Your task to perform on an android device: What is the news today? Image 0: 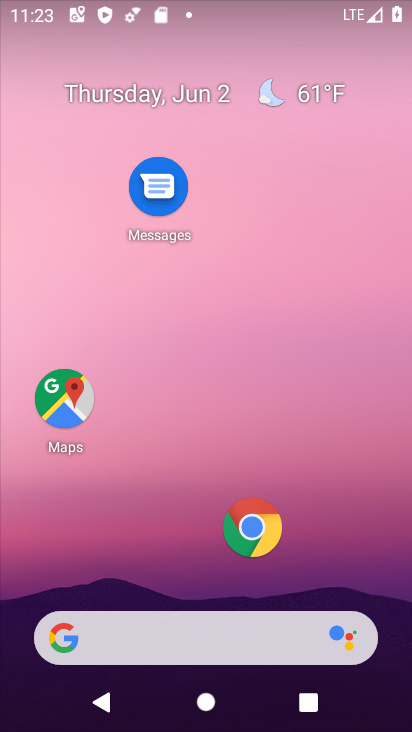
Step 0: press home button
Your task to perform on an android device: What is the news today? Image 1: 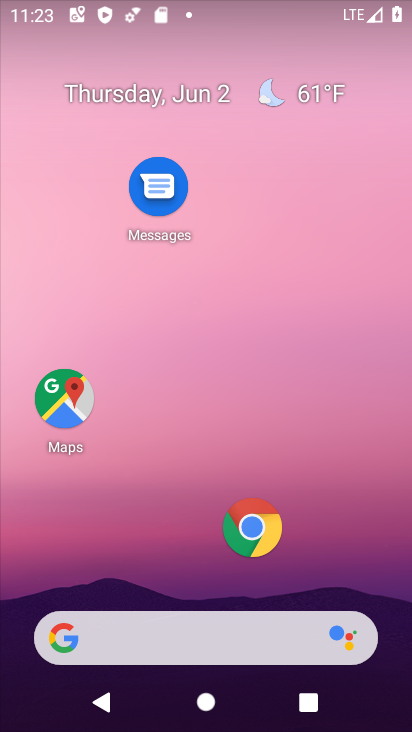
Step 1: task complete